Your task to perform on an android device: Open Android settings Image 0: 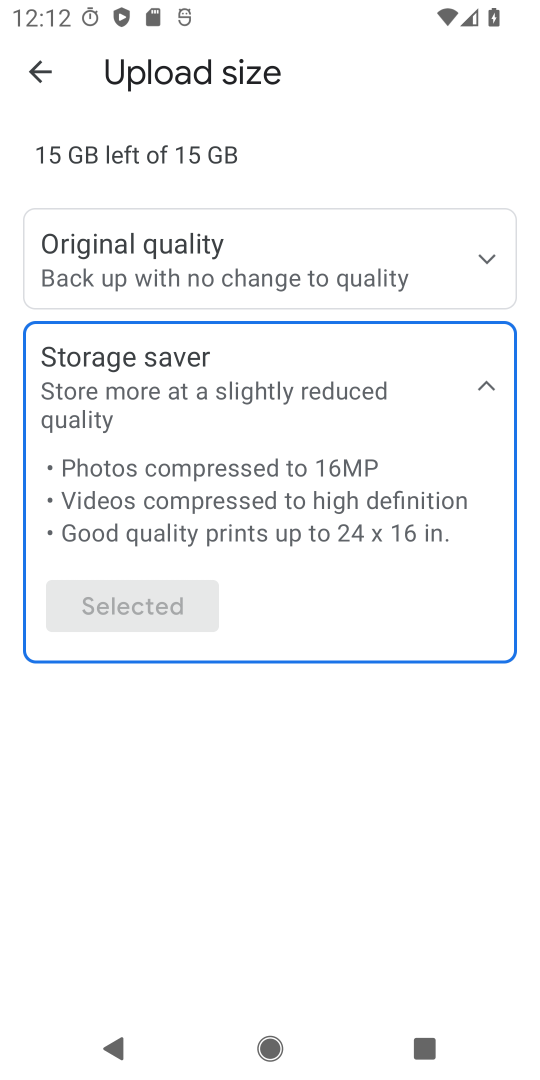
Step 0: press home button
Your task to perform on an android device: Open Android settings Image 1: 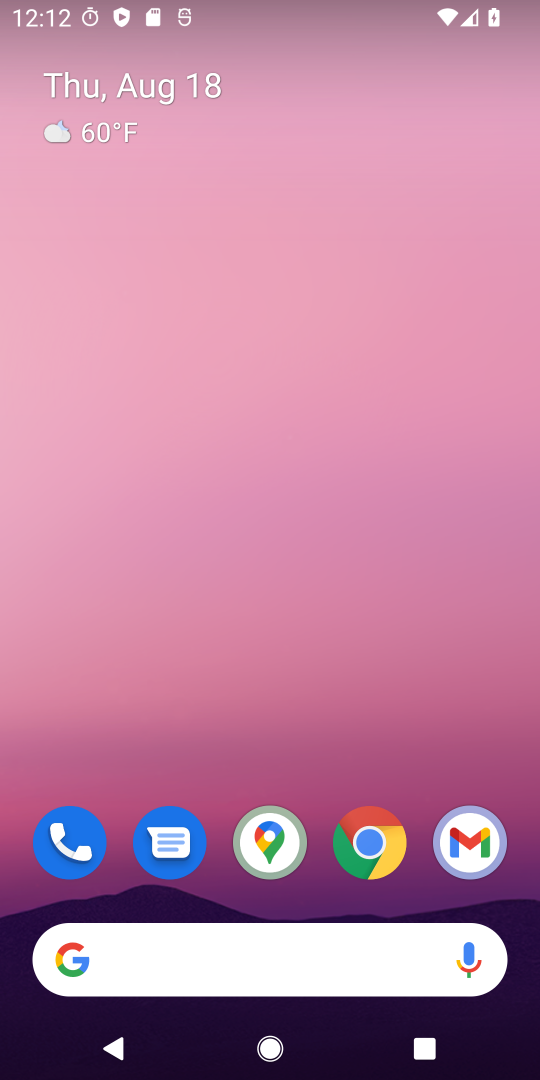
Step 1: drag from (280, 893) to (287, 29)
Your task to perform on an android device: Open Android settings Image 2: 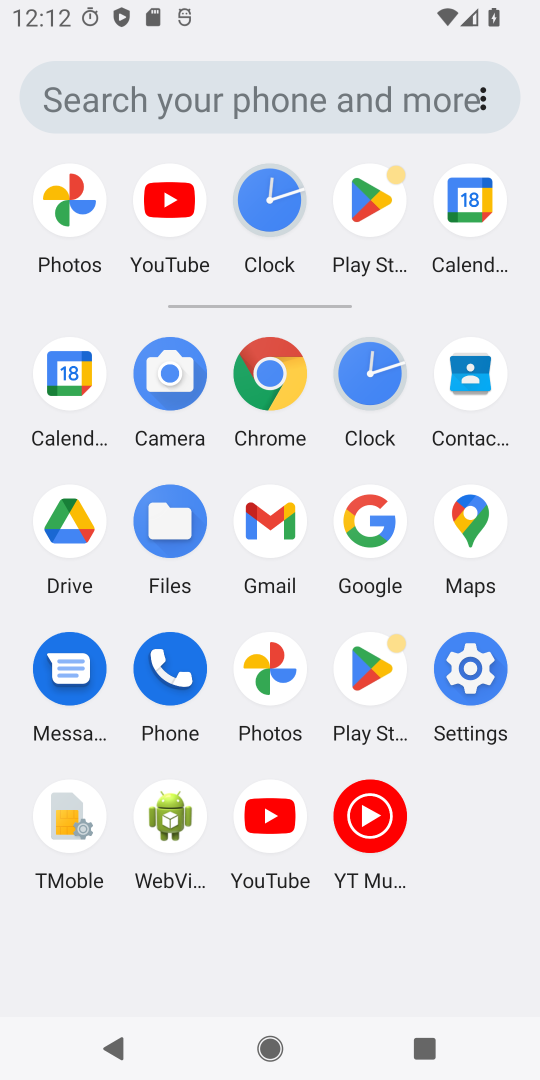
Step 2: click (469, 754)
Your task to perform on an android device: Open Android settings Image 3: 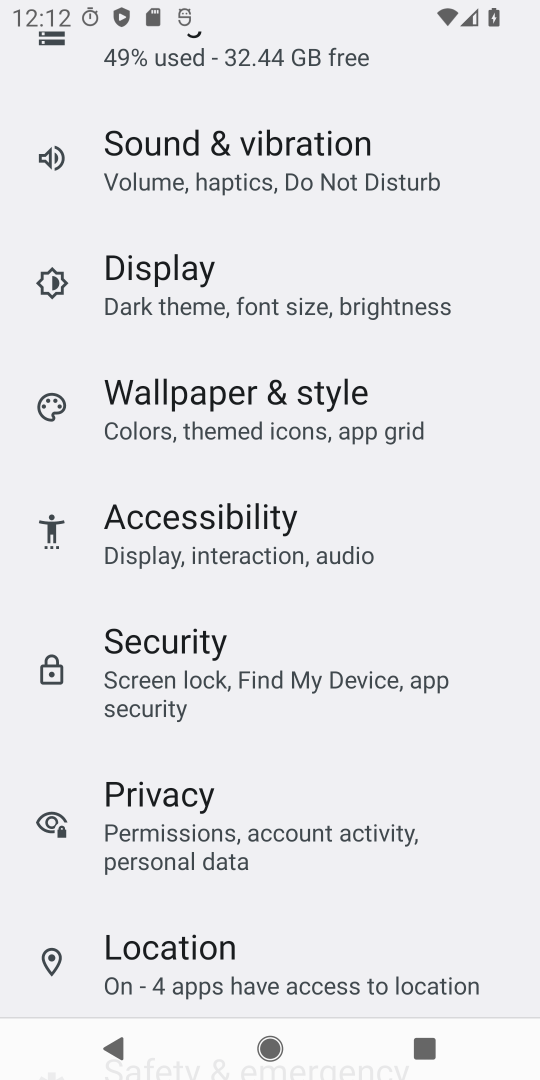
Step 3: task complete